Your task to perform on an android device: Go to Yahoo.com Image 0: 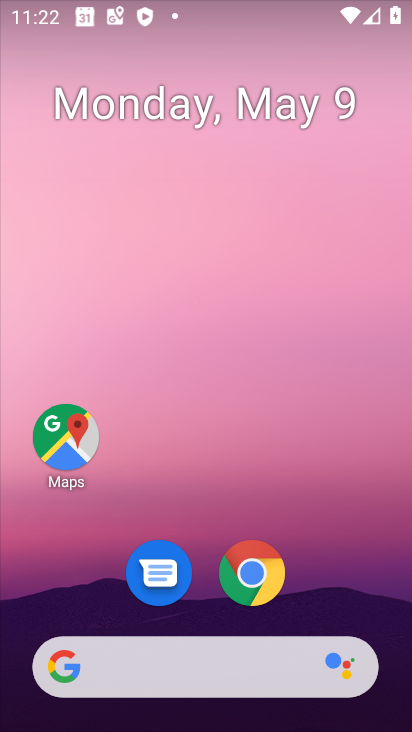
Step 0: drag from (179, 616) to (202, 276)
Your task to perform on an android device: Go to Yahoo.com Image 1: 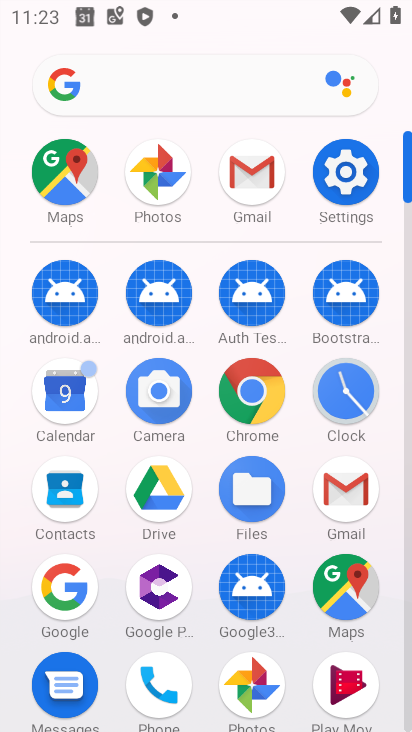
Step 1: click (233, 68)
Your task to perform on an android device: Go to Yahoo.com Image 2: 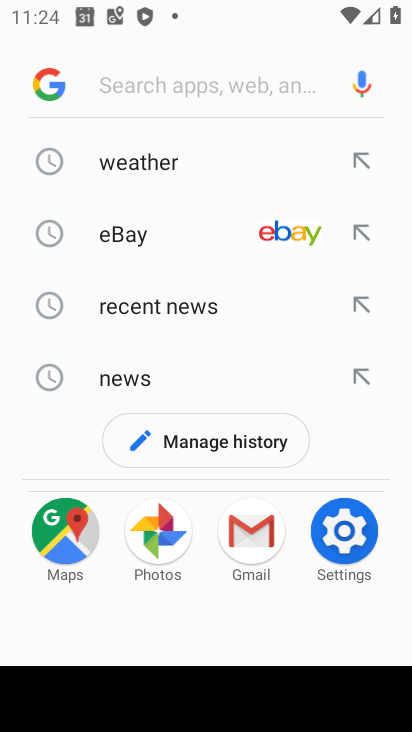
Step 2: type "yahoo"
Your task to perform on an android device: Go to Yahoo.com Image 3: 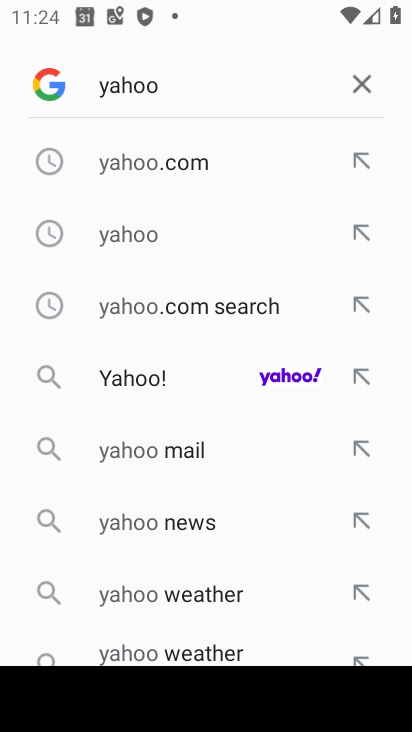
Step 3: click (249, 159)
Your task to perform on an android device: Go to Yahoo.com Image 4: 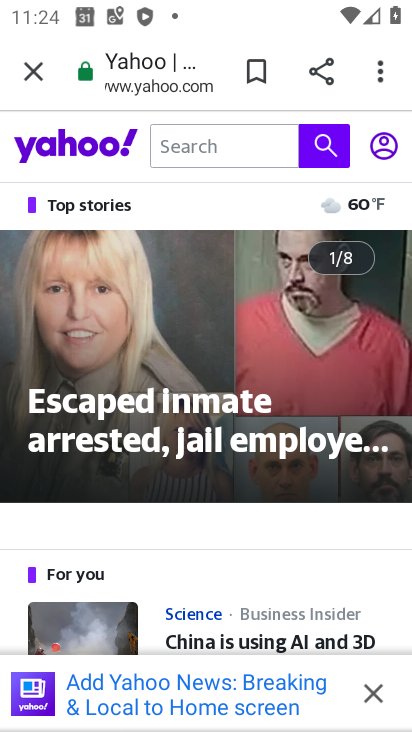
Step 4: task complete